Your task to perform on an android device: turn off airplane mode Image 0: 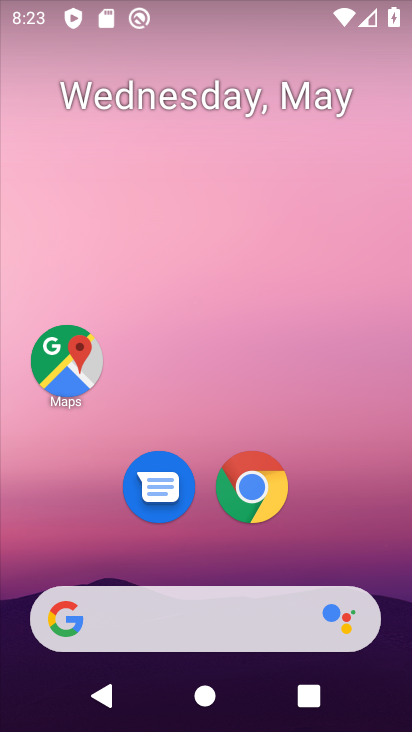
Step 0: press home button
Your task to perform on an android device: turn off airplane mode Image 1: 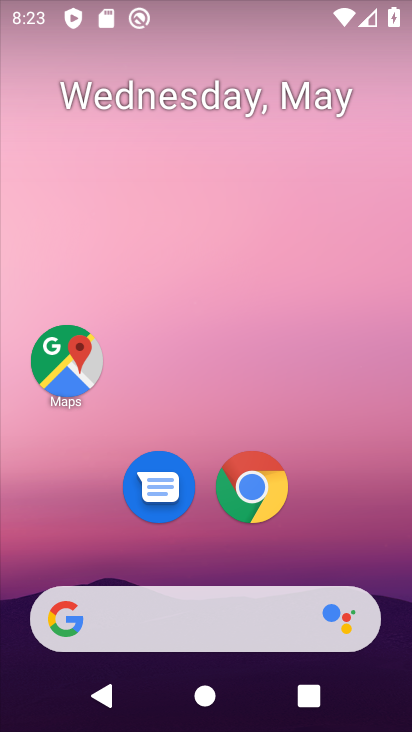
Step 1: task complete